Your task to perform on an android device: Open internet settings Image 0: 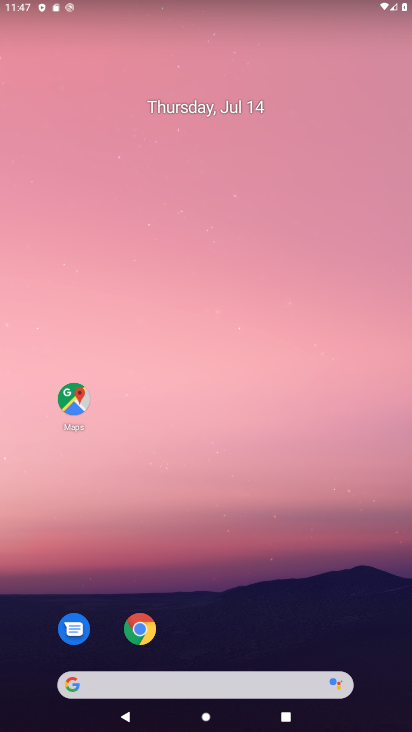
Step 0: drag from (279, 584) to (181, 115)
Your task to perform on an android device: Open internet settings Image 1: 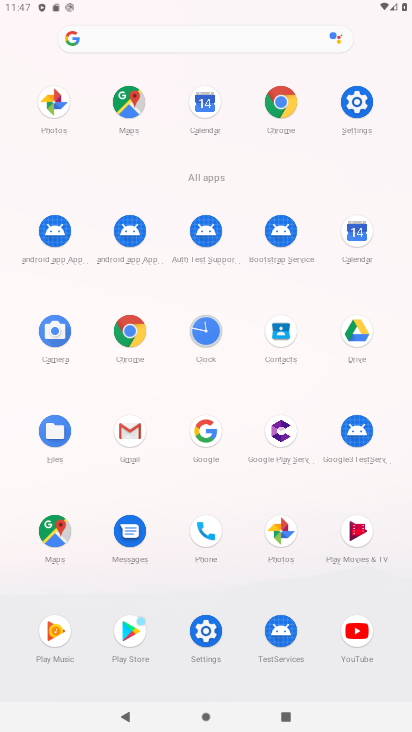
Step 1: click (355, 103)
Your task to perform on an android device: Open internet settings Image 2: 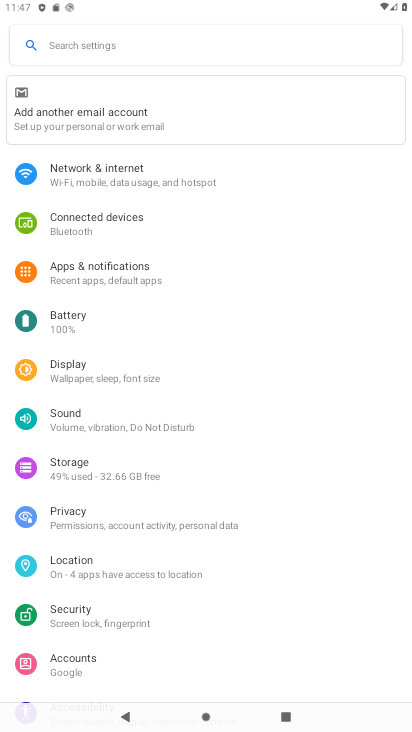
Step 2: click (109, 168)
Your task to perform on an android device: Open internet settings Image 3: 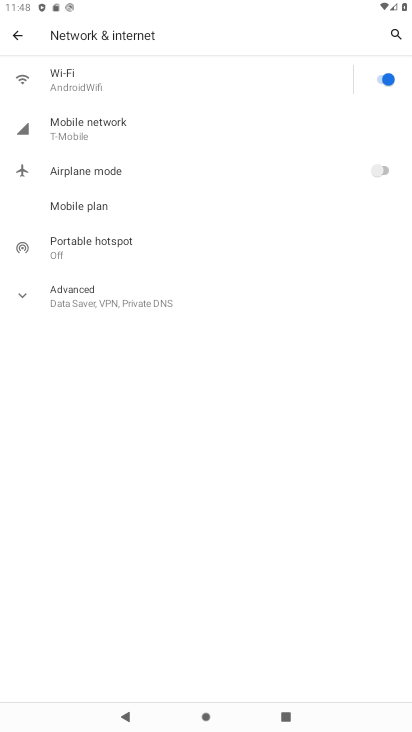
Step 3: click (75, 306)
Your task to perform on an android device: Open internet settings Image 4: 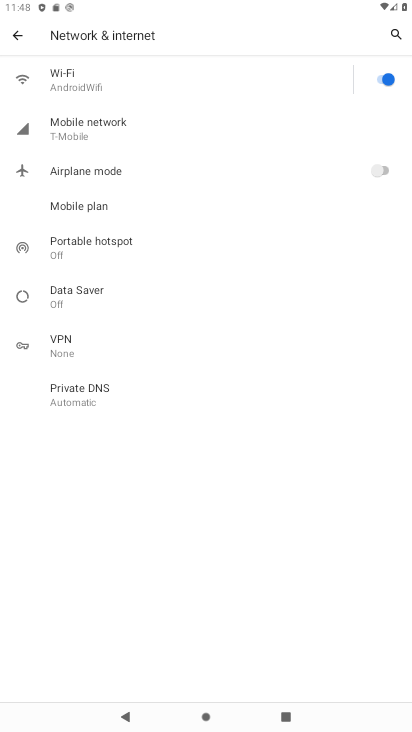
Step 4: task complete